Your task to perform on an android device: What's the weather today? Image 0: 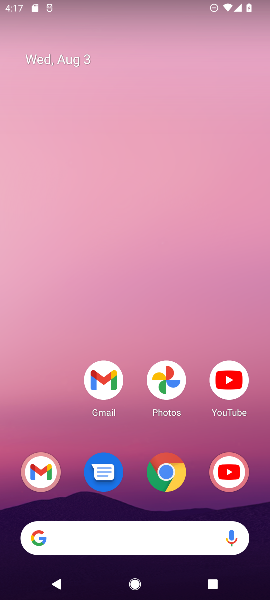
Step 0: drag from (142, 492) to (47, 44)
Your task to perform on an android device: What's the weather today? Image 1: 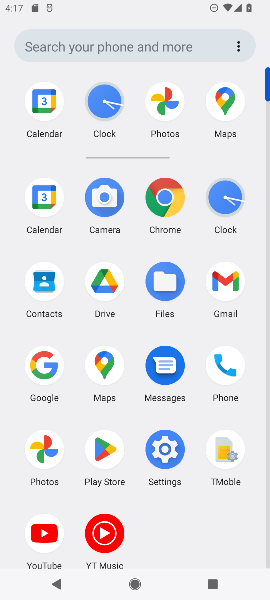
Step 1: click (49, 362)
Your task to perform on an android device: What's the weather today? Image 2: 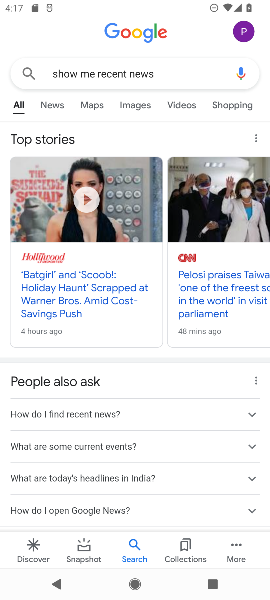
Step 2: press back button
Your task to perform on an android device: What's the weather today? Image 3: 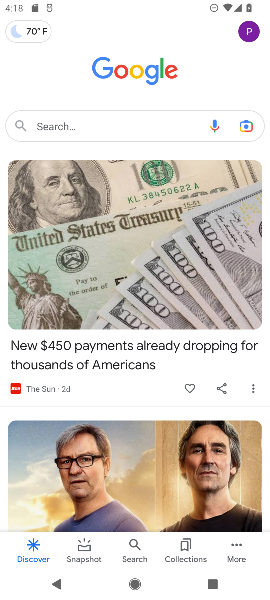
Step 3: click (49, 120)
Your task to perform on an android device: What's the weather today? Image 4: 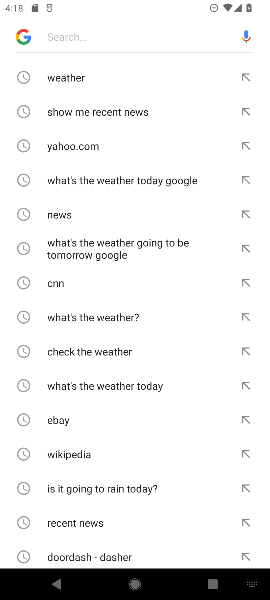
Step 4: type "What's the weather today?"
Your task to perform on an android device: What's the weather today? Image 5: 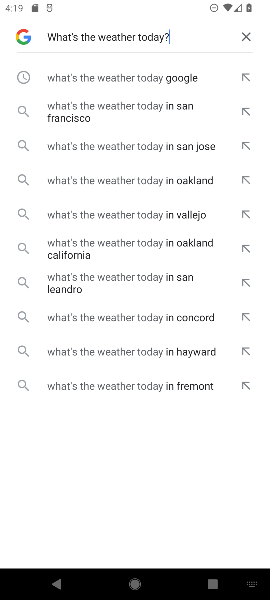
Step 5: click (137, 82)
Your task to perform on an android device: What's the weather today? Image 6: 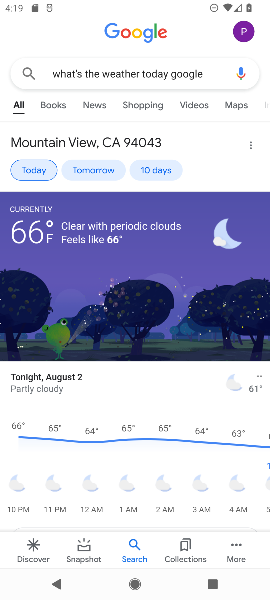
Step 6: task complete